Your task to perform on an android device: toggle airplane mode Image 0: 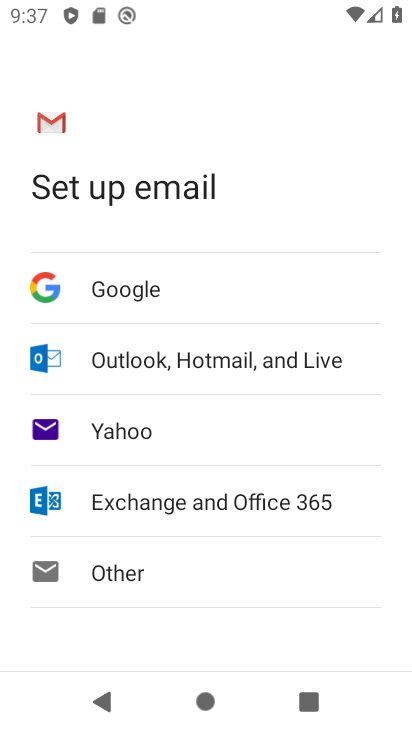
Step 0: press home button
Your task to perform on an android device: toggle airplane mode Image 1: 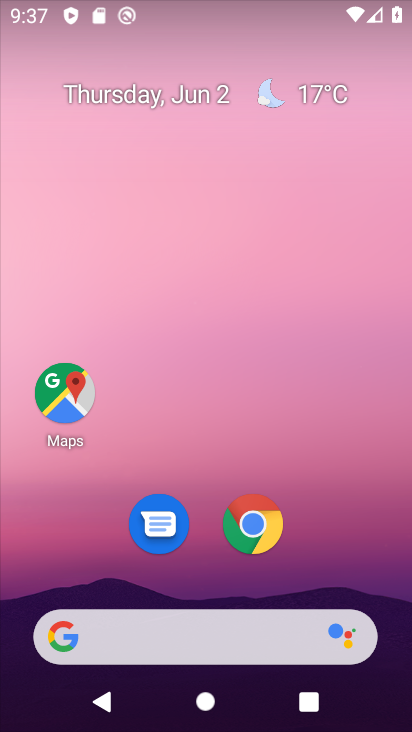
Step 1: drag from (312, 548) to (273, 0)
Your task to perform on an android device: toggle airplane mode Image 2: 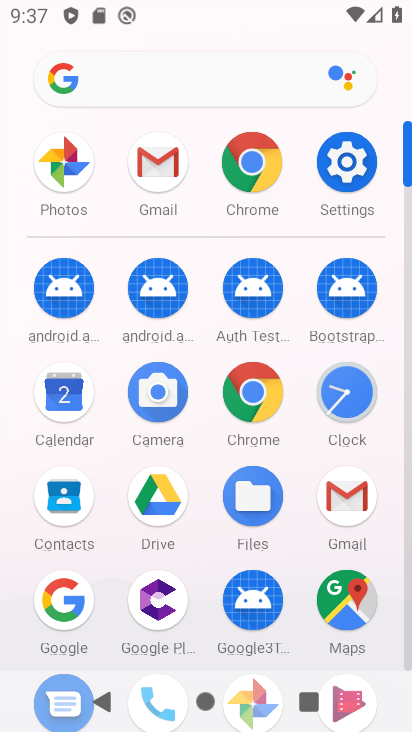
Step 2: click (347, 165)
Your task to perform on an android device: toggle airplane mode Image 3: 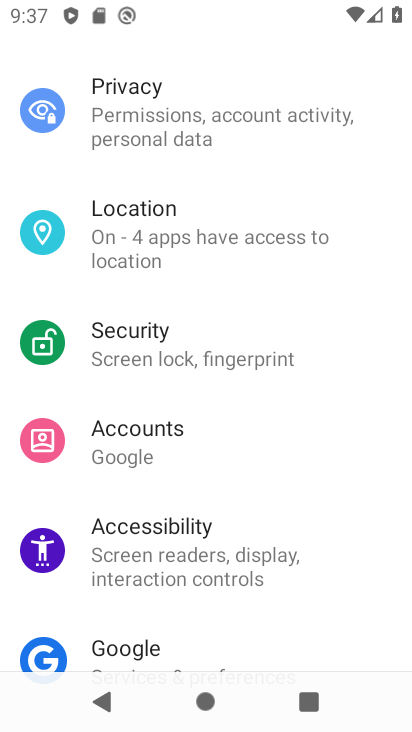
Step 3: drag from (276, 178) to (285, 687)
Your task to perform on an android device: toggle airplane mode Image 4: 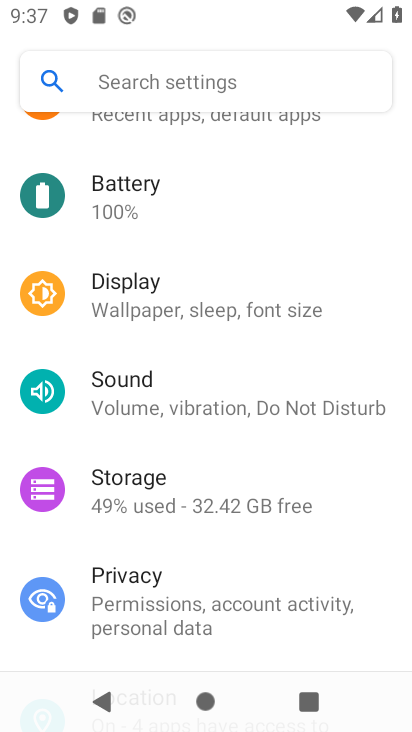
Step 4: drag from (207, 274) to (239, 605)
Your task to perform on an android device: toggle airplane mode Image 5: 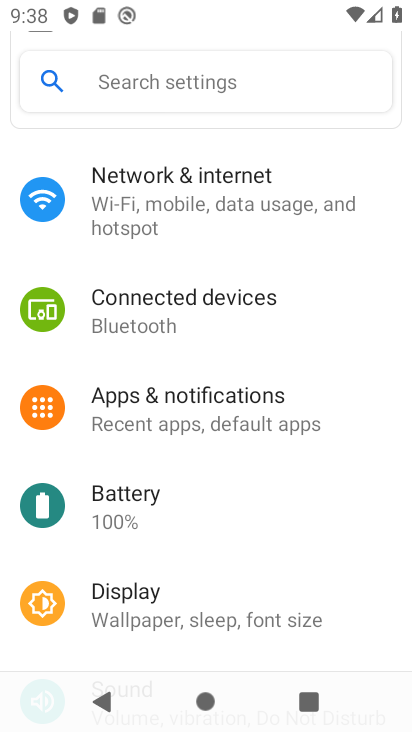
Step 5: click (238, 195)
Your task to perform on an android device: toggle airplane mode Image 6: 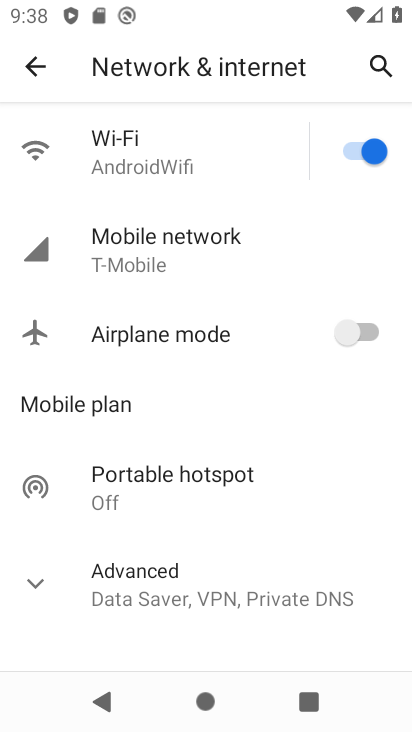
Step 6: click (352, 329)
Your task to perform on an android device: toggle airplane mode Image 7: 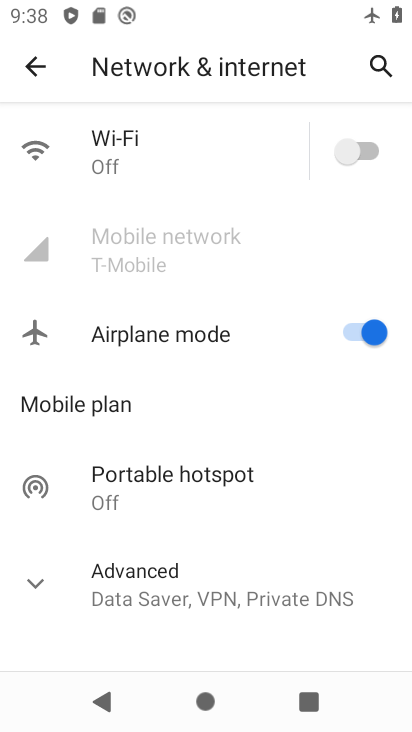
Step 7: task complete